Your task to perform on an android device: Do I have any events this weekend? Image 0: 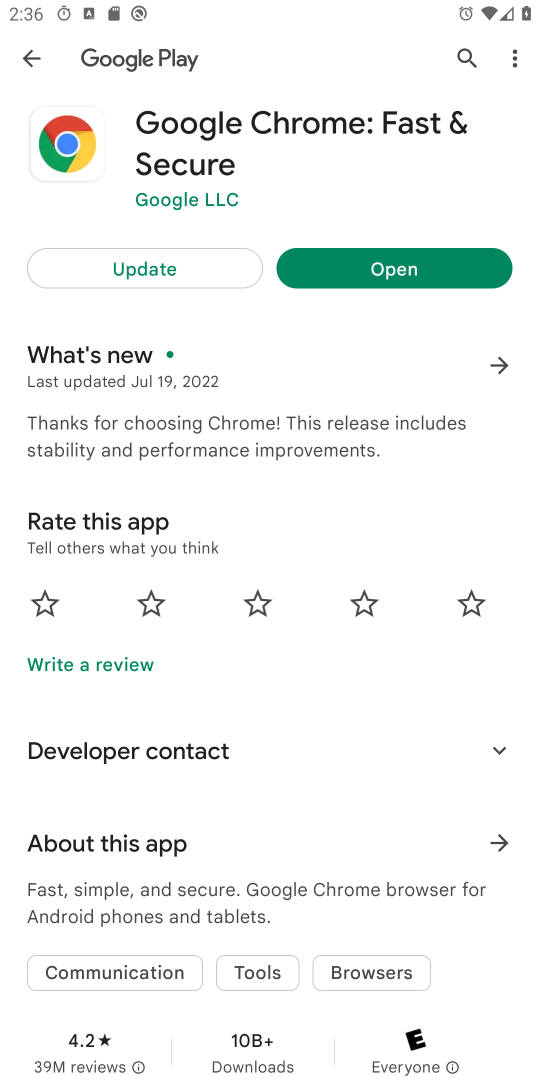
Step 0: press home button
Your task to perform on an android device: Do I have any events this weekend? Image 1: 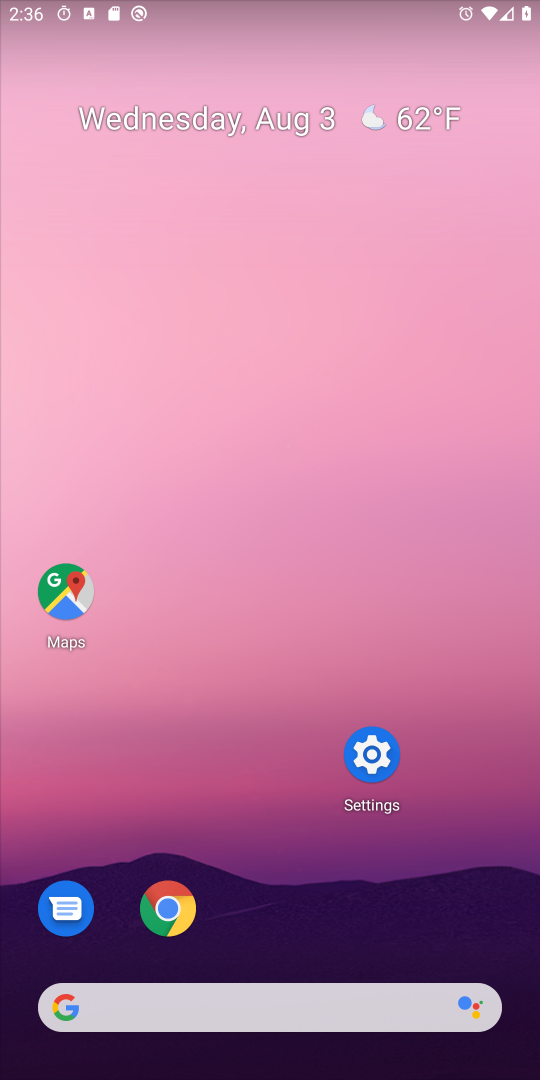
Step 1: drag from (280, 788) to (346, 0)
Your task to perform on an android device: Do I have any events this weekend? Image 2: 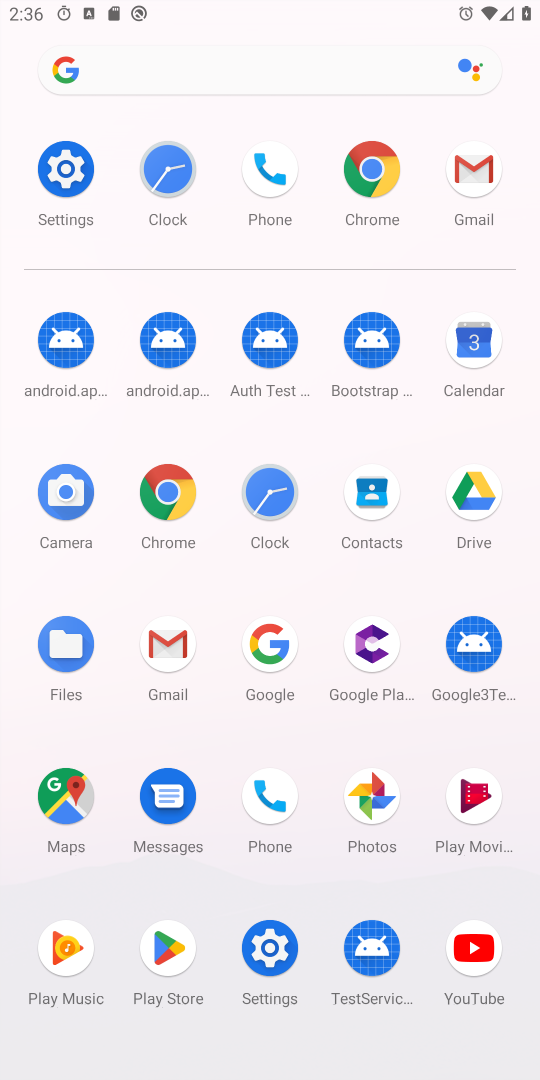
Step 2: click (483, 357)
Your task to perform on an android device: Do I have any events this weekend? Image 3: 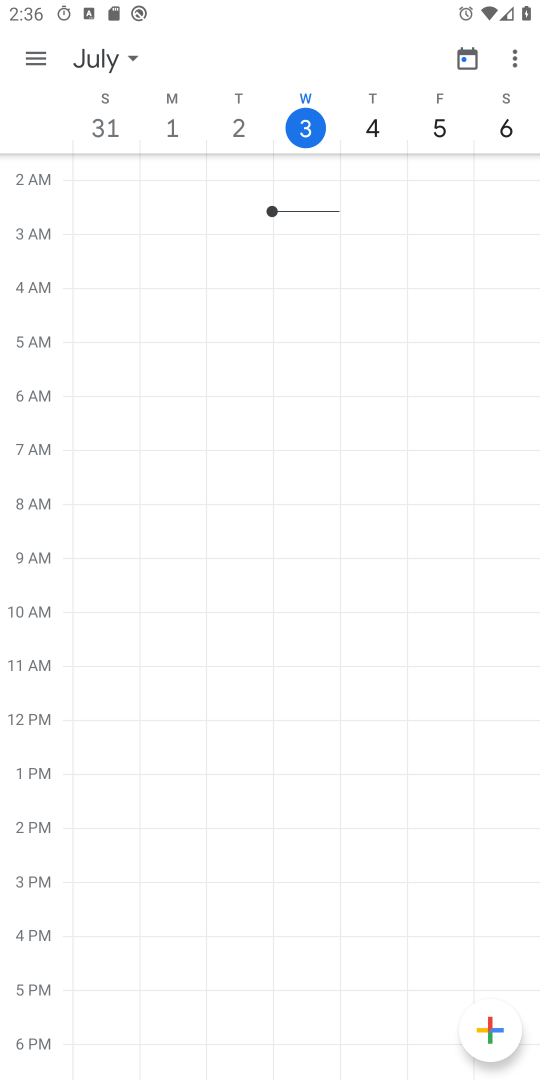
Step 3: task complete